Your task to perform on an android device: Open Google Chrome and click the shortcut for Amazon.com Image 0: 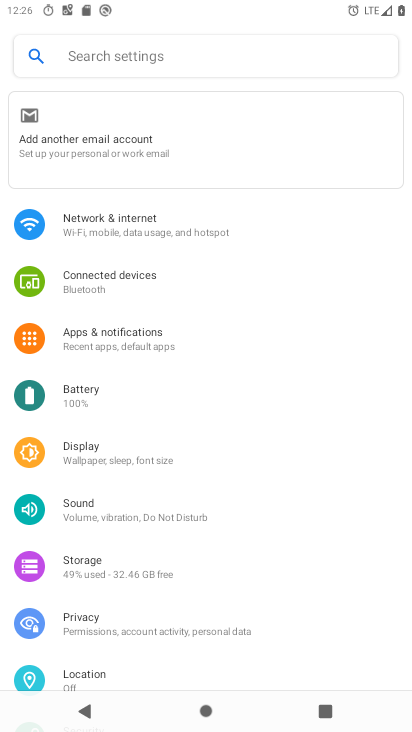
Step 0: press home button
Your task to perform on an android device: Open Google Chrome and click the shortcut for Amazon.com Image 1: 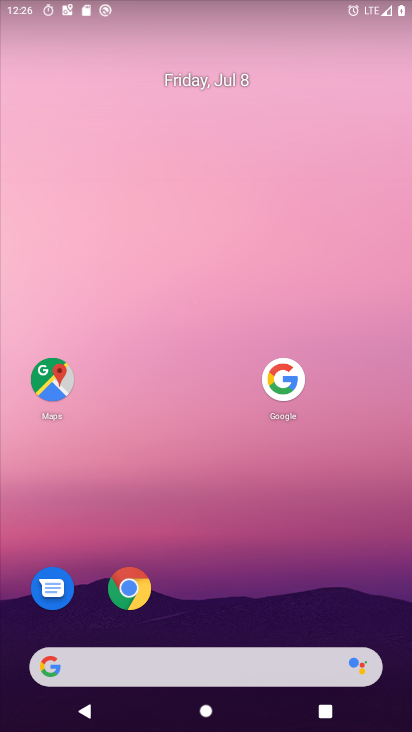
Step 1: click (128, 584)
Your task to perform on an android device: Open Google Chrome and click the shortcut for Amazon.com Image 2: 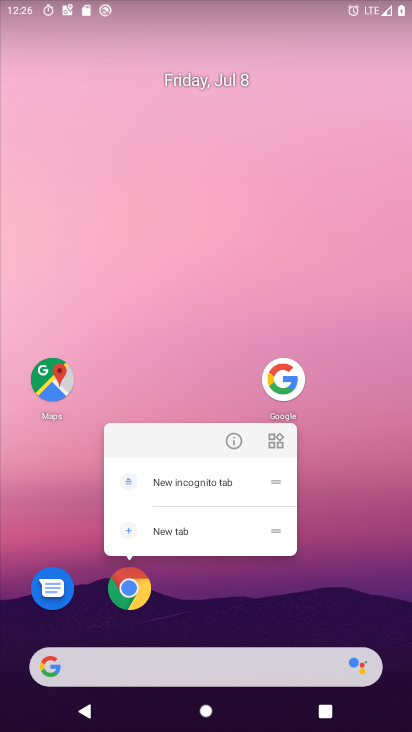
Step 2: click (128, 591)
Your task to perform on an android device: Open Google Chrome and click the shortcut for Amazon.com Image 3: 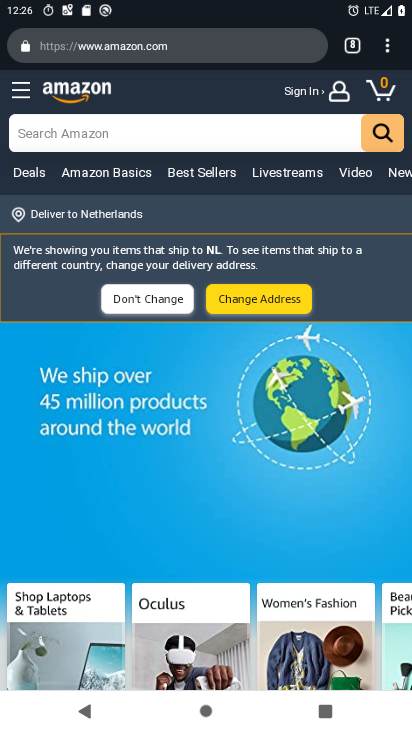
Step 3: task complete